Your task to perform on an android device: turn on airplane mode Image 0: 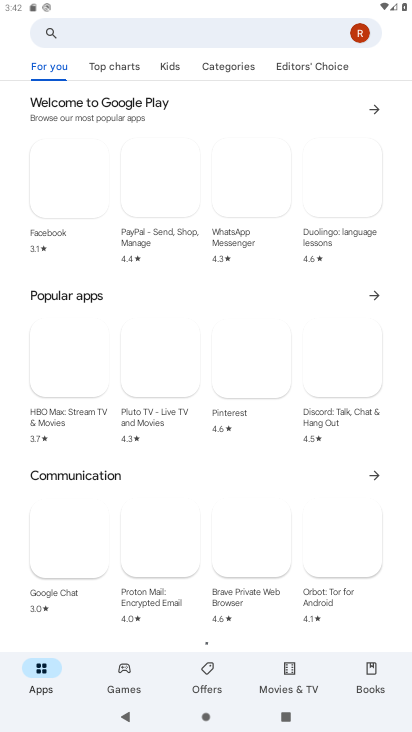
Step 0: press home button
Your task to perform on an android device: turn on airplane mode Image 1: 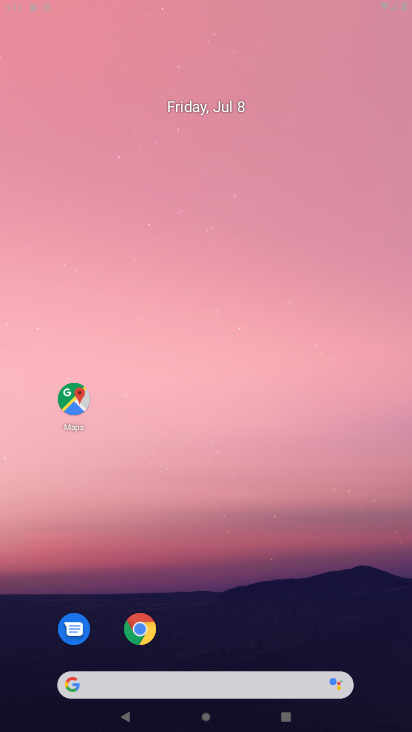
Step 1: drag from (244, 641) to (194, 249)
Your task to perform on an android device: turn on airplane mode Image 2: 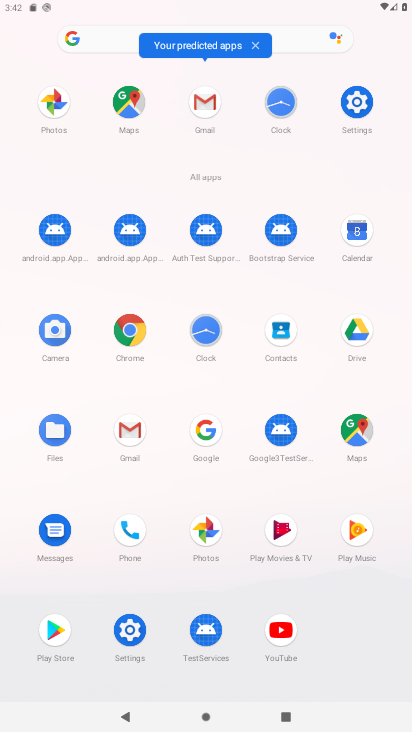
Step 2: click (213, 107)
Your task to perform on an android device: turn on airplane mode Image 3: 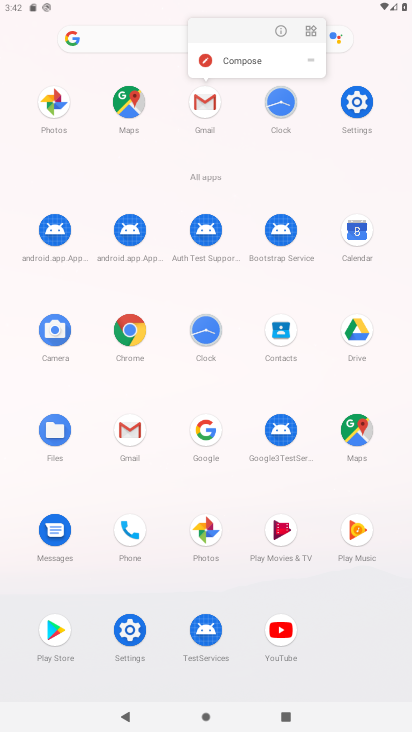
Step 3: click (364, 92)
Your task to perform on an android device: turn on airplane mode Image 4: 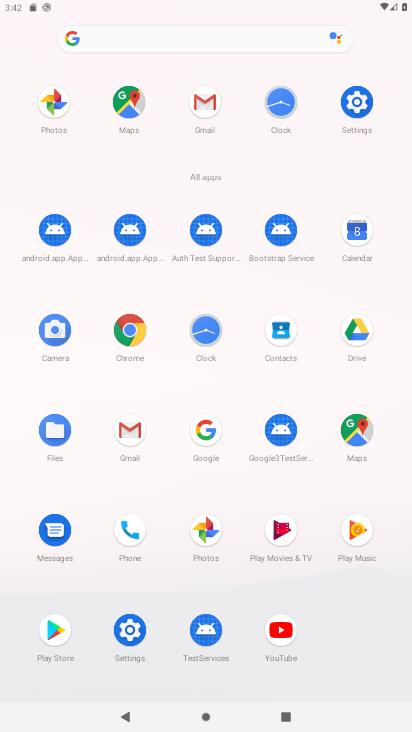
Step 4: click (364, 92)
Your task to perform on an android device: turn on airplane mode Image 5: 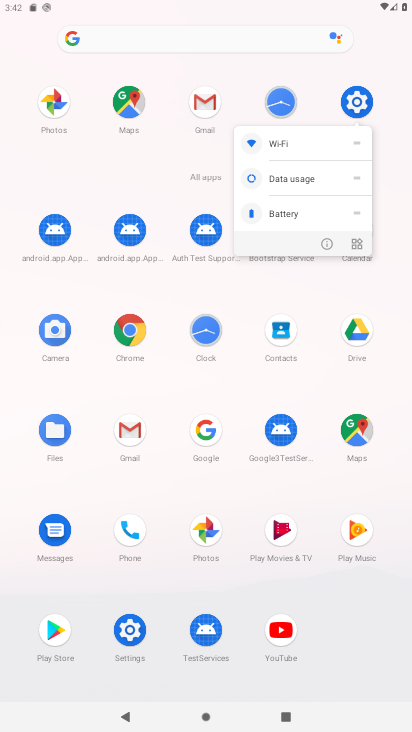
Step 5: click (364, 92)
Your task to perform on an android device: turn on airplane mode Image 6: 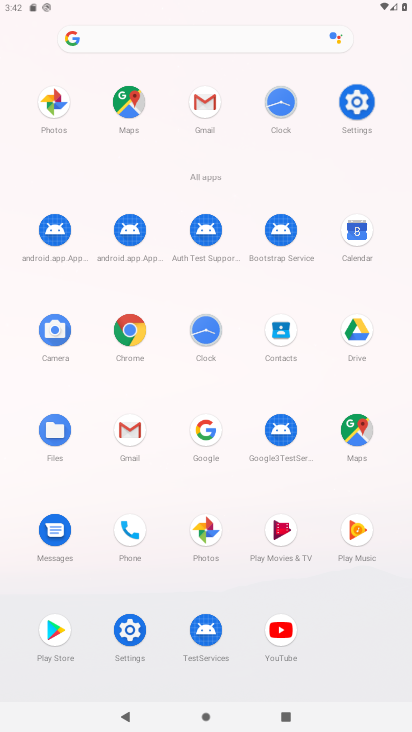
Step 6: click (353, 102)
Your task to perform on an android device: turn on airplane mode Image 7: 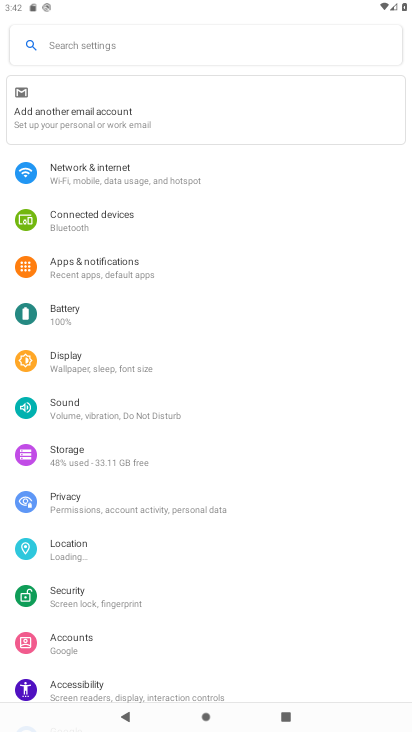
Step 7: click (130, 167)
Your task to perform on an android device: turn on airplane mode Image 8: 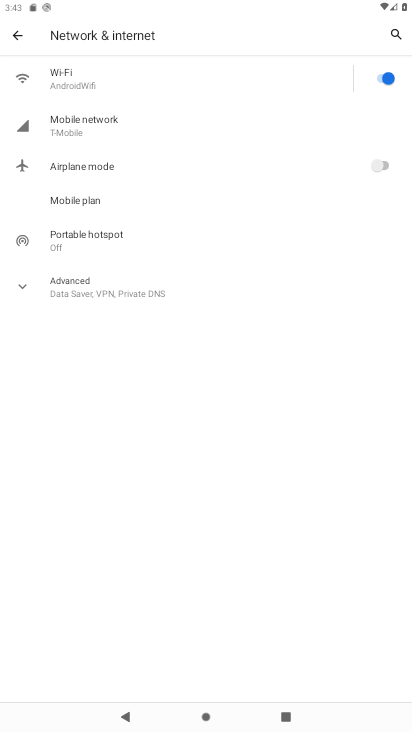
Step 8: click (375, 156)
Your task to perform on an android device: turn on airplane mode Image 9: 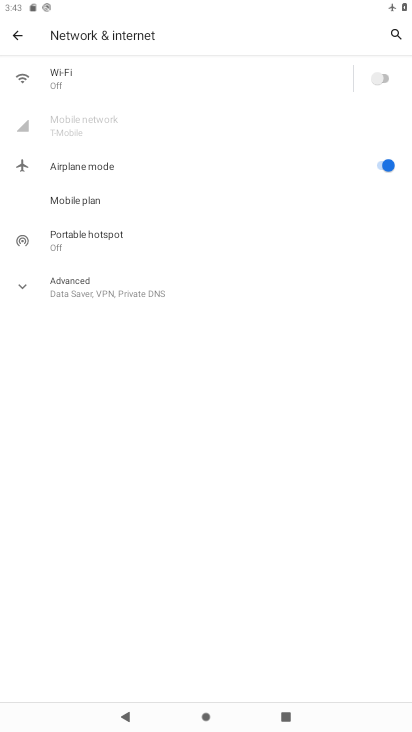
Step 9: task complete